Your task to perform on an android device: Go to battery settings Image 0: 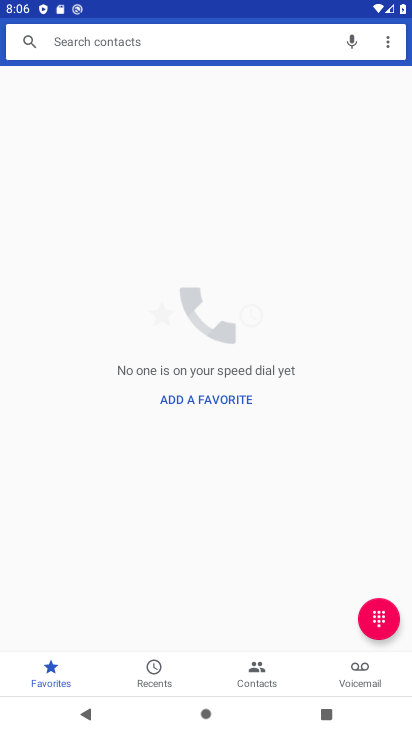
Step 0: press back button
Your task to perform on an android device: Go to battery settings Image 1: 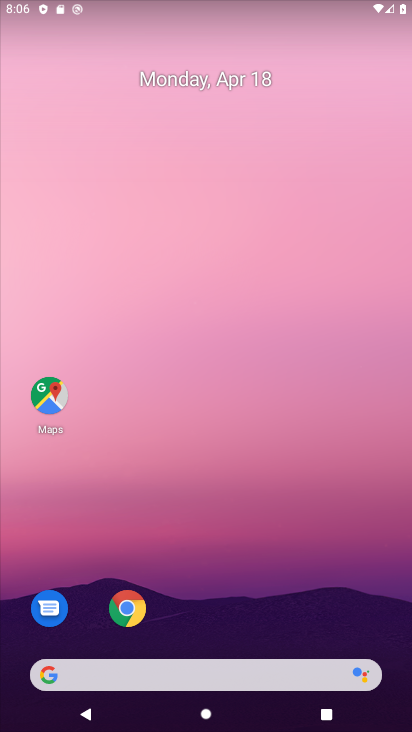
Step 1: drag from (228, 399) to (312, 31)
Your task to perform on an android device: Go to battery settings Image 2: 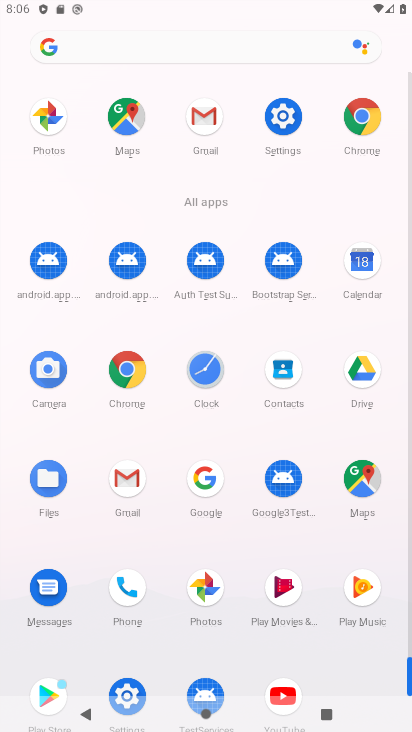
Step 2: click (283, 119)
Your task to perform on an android device: Go to battery settings Image 3: 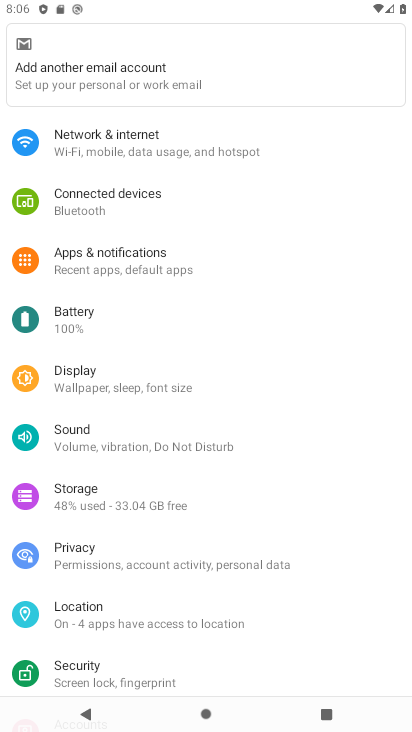
Step 3: click (83, 313)
Your task to perform on an android device: Go to battery settings Image 4: 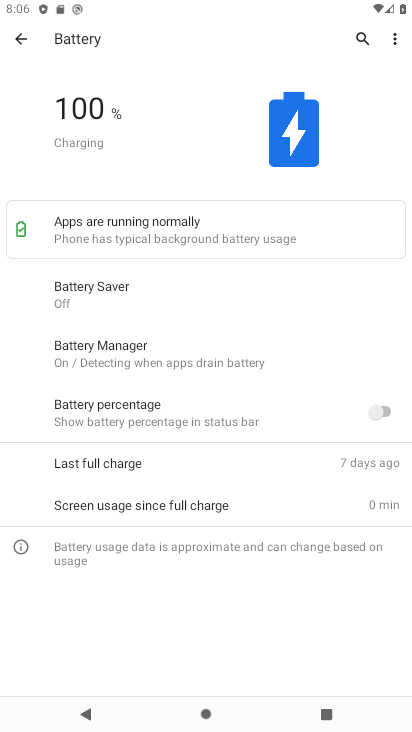
Step 4: task complete